Your task to perform on an android device: Open Google Maps and go to "Timeline" Image 0: 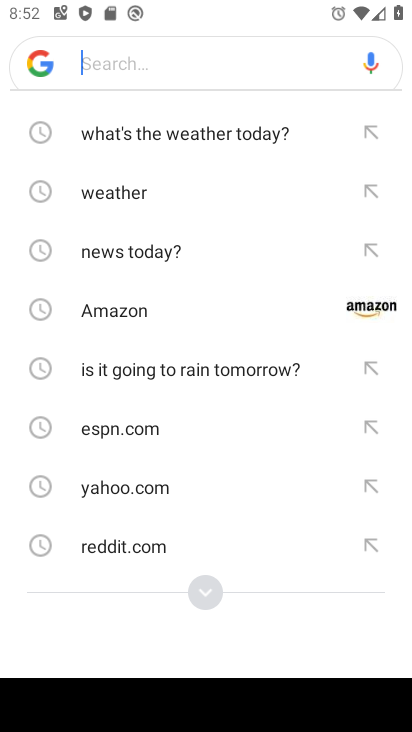
Step 0: press home button
Your task to perform on an android device: Open Google Maps and go to "Timeline" Image 1: 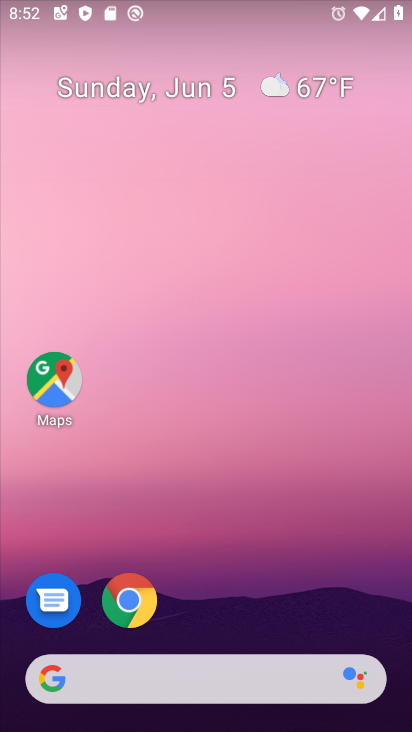
Step 1: drag from (383, 628) to (309, 105)
Your task to perform on an android device: Open Google Maps and go to "Timeline" Image 2: 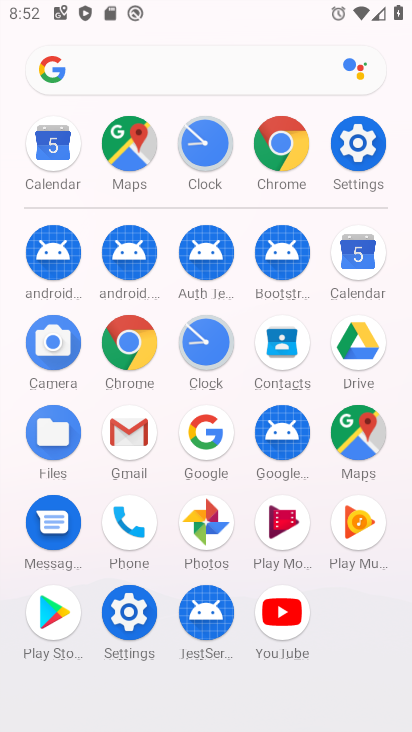
Step 2: click (365, 451)
Your task to perform on an android device: Open Google Maps and go to "Timeline" Image 3: 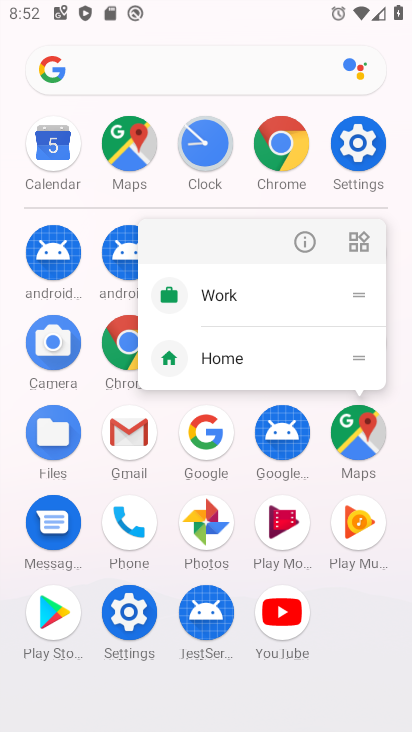
Step 3: click (365, 451)
Your task to perform on an android device: Open Google Maps and go to "Timeline" Image 4: 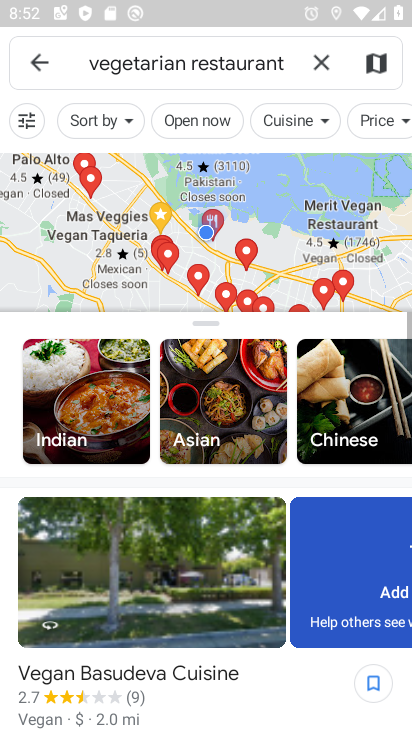
Step 4: click (312, 55)
Your task to perform on an android device: Open Google Maps and go to "Timeline" Image 5: 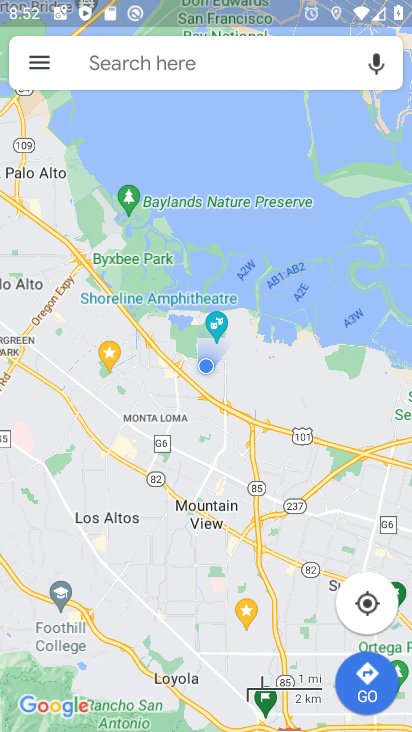
Step 5: click (31, 62)
Your task to perform on an android device: Open Google Maps and go to "Timeline" Image 6: 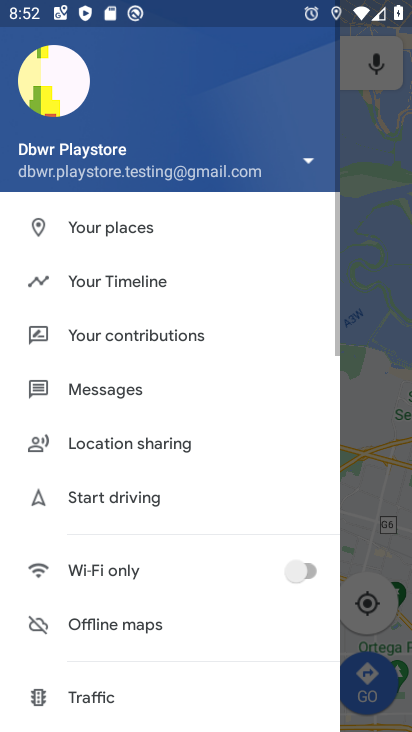
Step 6: click (148, 270)
Your task to perform on an android device: Open Google Maps and go to "Timeline" Image 7: 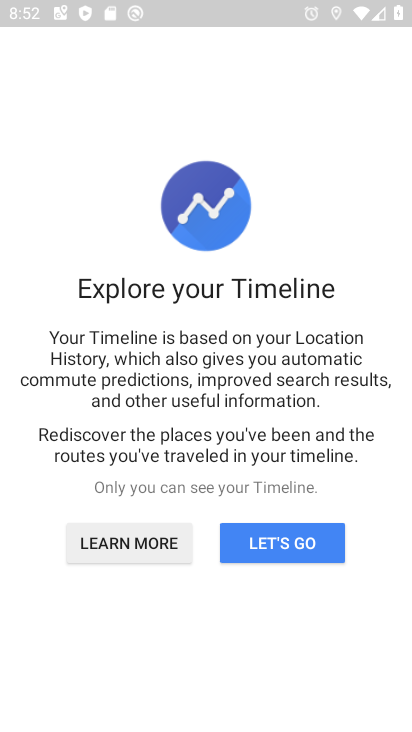
Step 7: task complete